Your task to perform on an android device: install app "Reddit" Image 0: 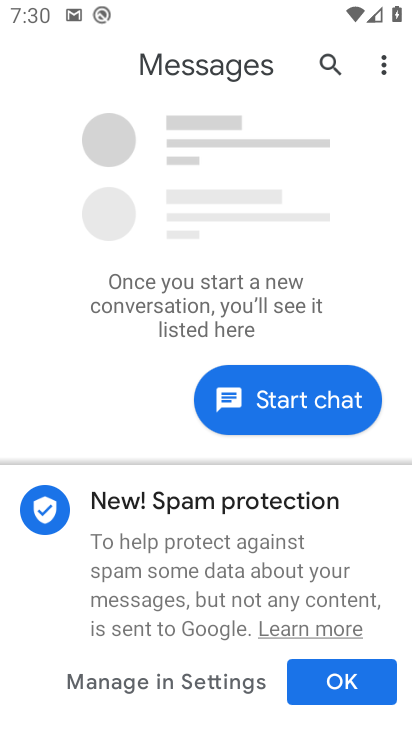
Step 0: press home button
Your task to perform on an android device: install app "Reddit" Image 1: 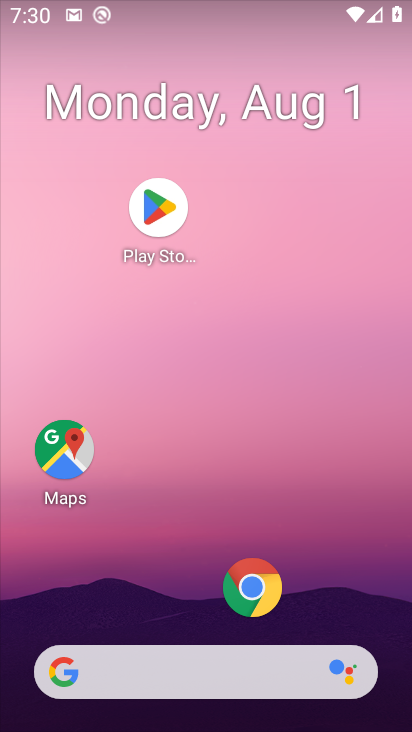
Step 1: click (161, 220)
Your task to perform on an android device: install app "Reddit" Image 2: 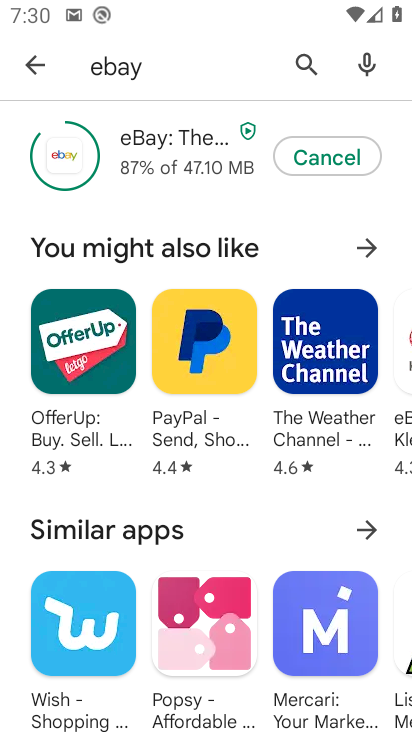
Step 2: click (306, 57)
Your task to perform on an android device: install app "Reddit" Image 3: 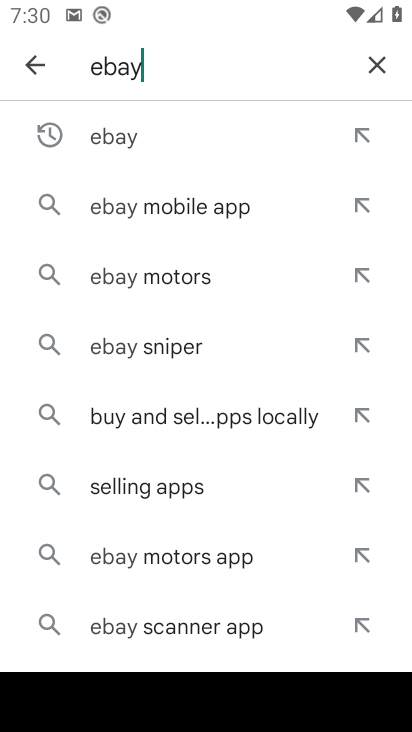
Step 3: click (358, 57)
Your task to perform on an android device: install app "Reddit" Image 4: 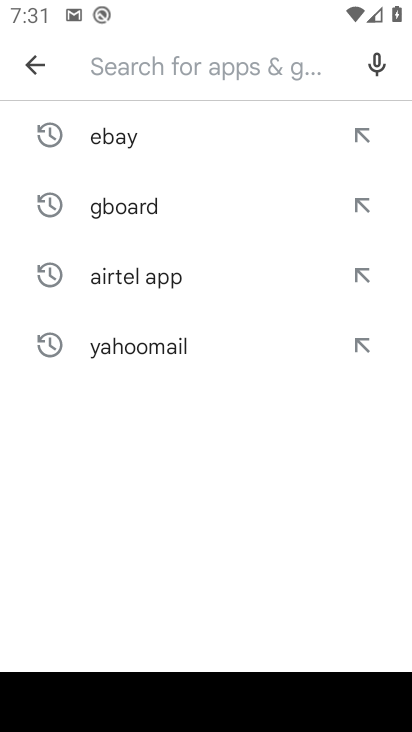
Step 4: type "reddit"
Your task to perform on an android device: install app "Reddit" Image 5: 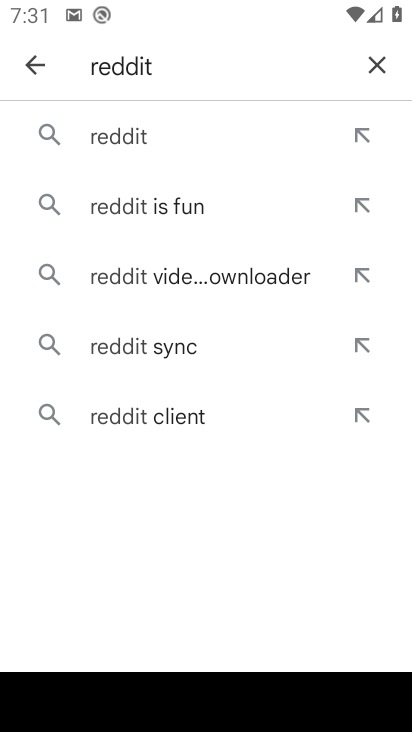
Step 5: click (184, 123)
Your task to perform on an android device: install app "Reddit" Image 6: 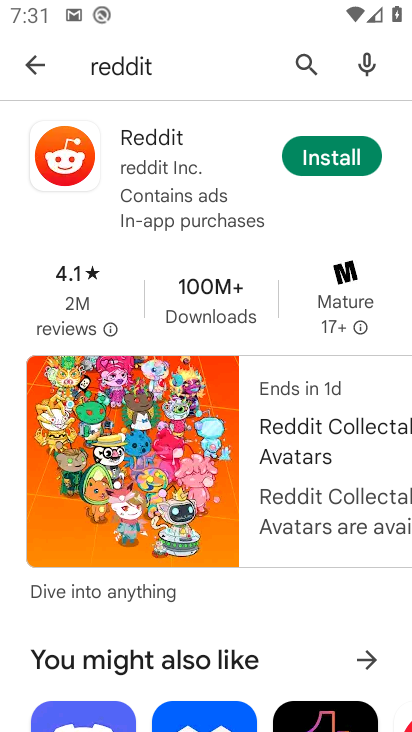
Step 6: click (326, 143)
Your task to perform on an android device: install app "Reddit" Image 7: 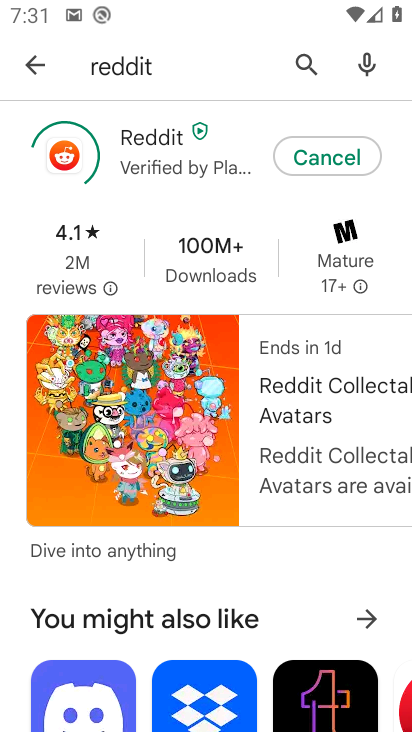
Step 7: task complete